Your task to perform on an android device: Go to Android settings Image 0: 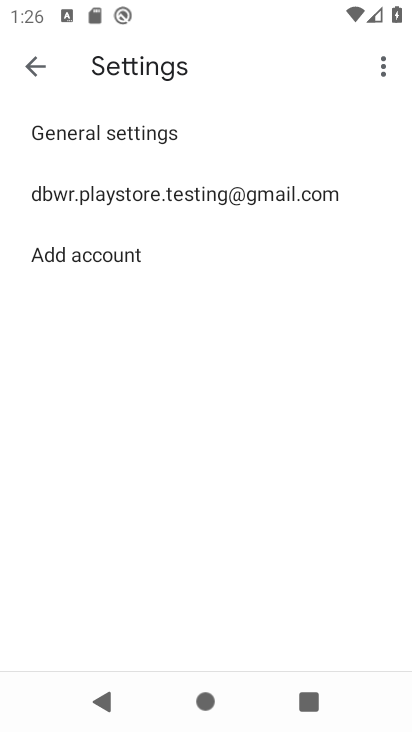
Step 0: press home button
Your task to perform on an android device: Go to Android settings Image 1: 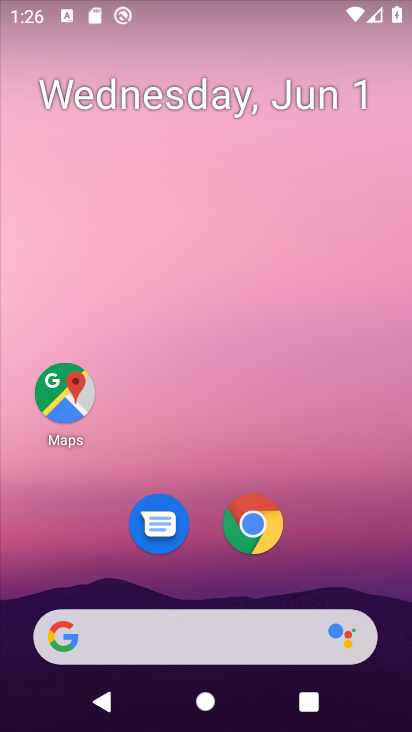
Step 1: drag from (318, 530) to (300, 16)
Your task to perform on an android device: Go to Android settings Image 2: 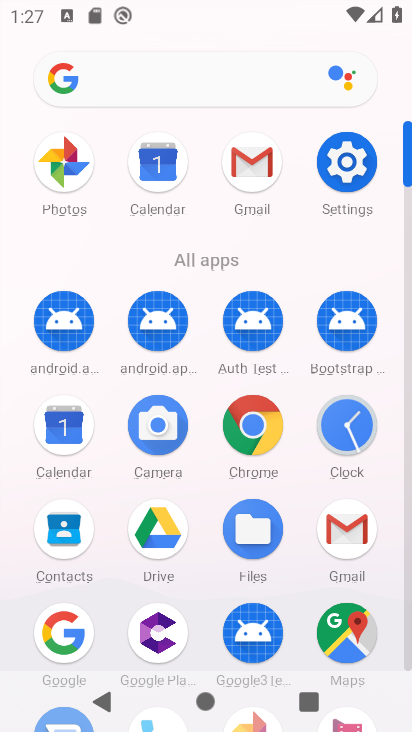
Step 2: click (343, 166)
Your task to perform on an android device: Go to Android settings Image 3: 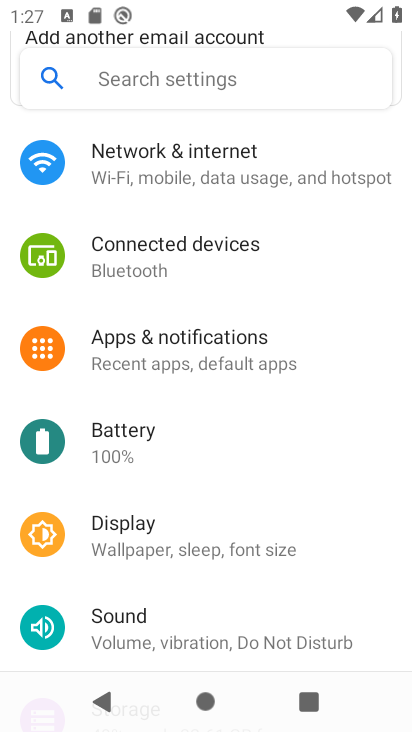
Step 3: drag from (208, 590) to (233, 22)
Your task to perform on an android device: Go to Android settings Image 4: 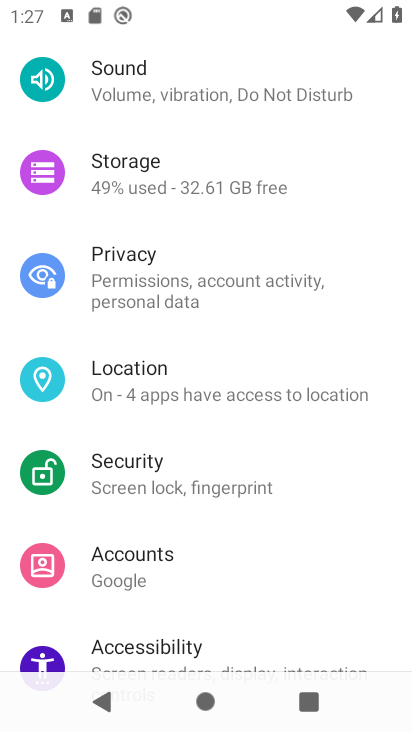
Step 4: drag from (260, 529) to (284, 0)
Your task to perform on an android device: Go to Android settings Image 5: 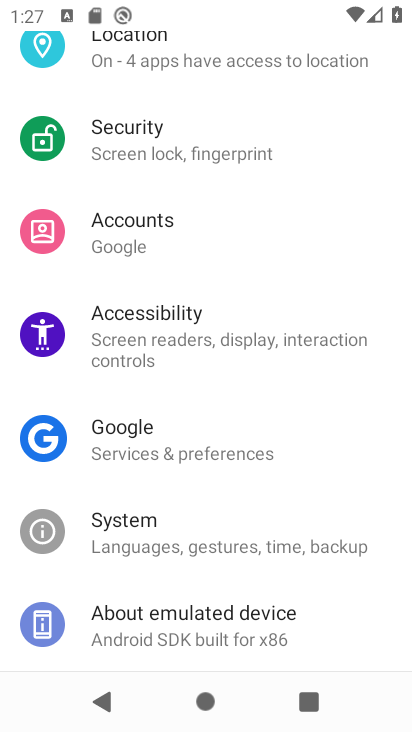
Step 5: click (255, 626)
Your task to perform on an android device: Go to Android settings Image 6: 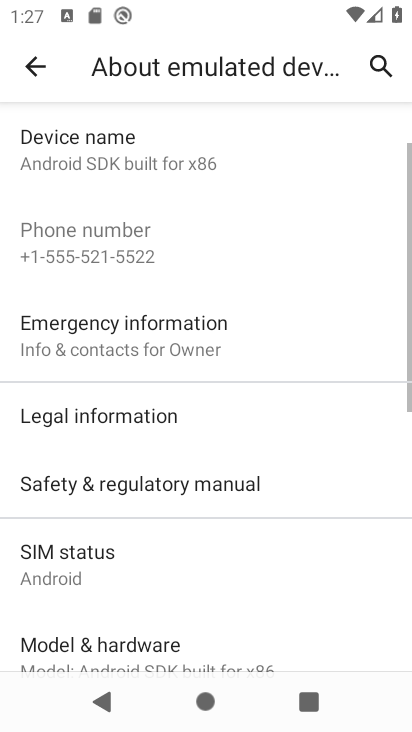
Step 6: task complete